Your task to perform on an android device: find snoozed emails in the gmail app Image 0: 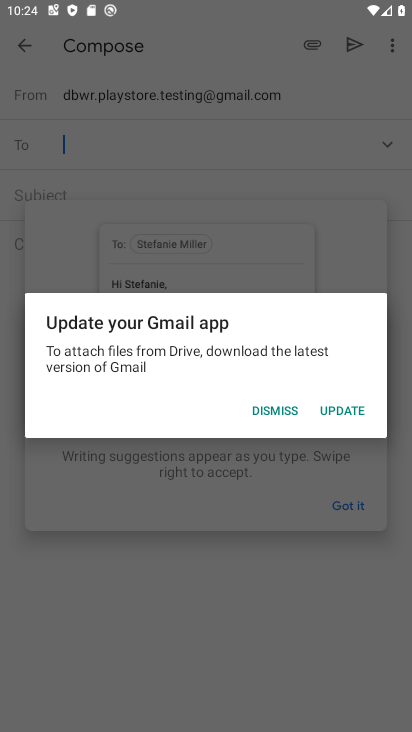
Step 0: press home button
Your task to perform on an android device: find snoozed emails in the gmail app Image 1: 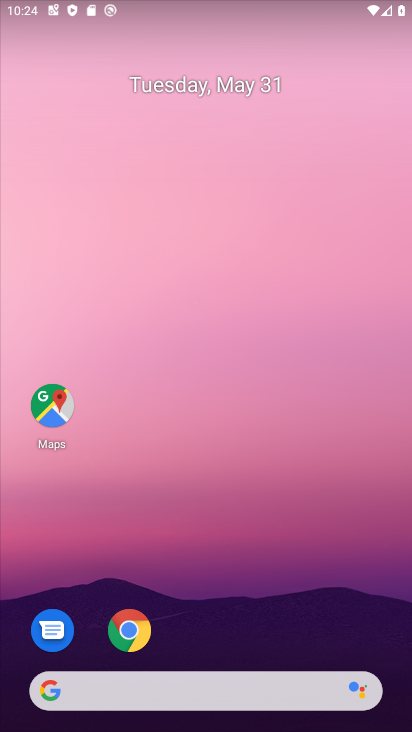
Step 1: drag from (273, 590) to (234, 176)
Your task to perform on an android device: find snoozed emails in the gmail app Image 2: 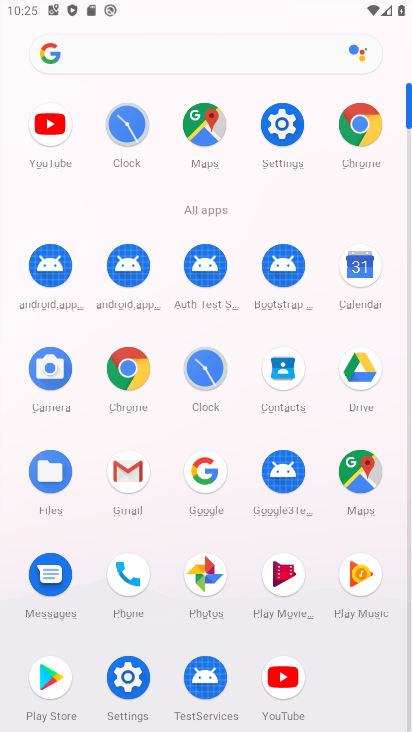
Step 2: click (126, 473)
Your task to perform on an android device: find snoozed emails in the gmail app Image 3: 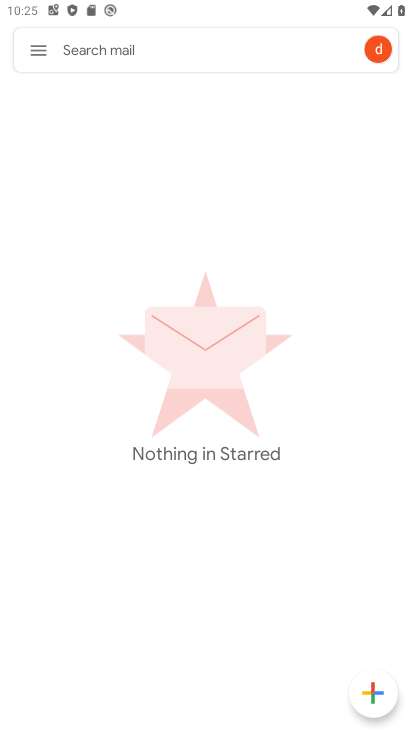
Step 3: click (40, 45)
Your task to perform on an android device: find snoozed emails in the gmail app Image 4: 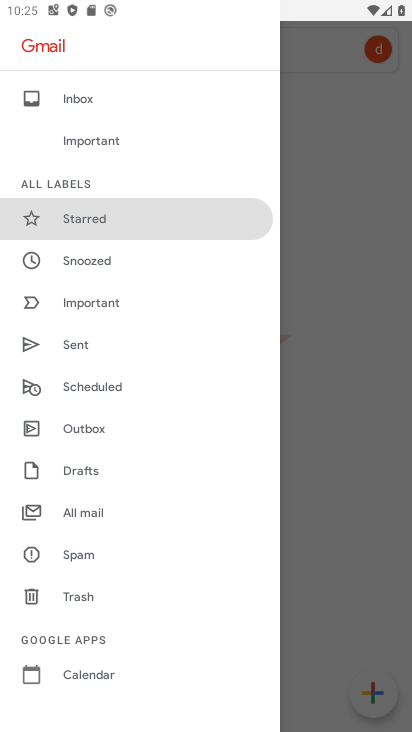
Step 4: click (86, 255)
Your task to perform on an android device: find snoozed emails in the gmail app Image 5: 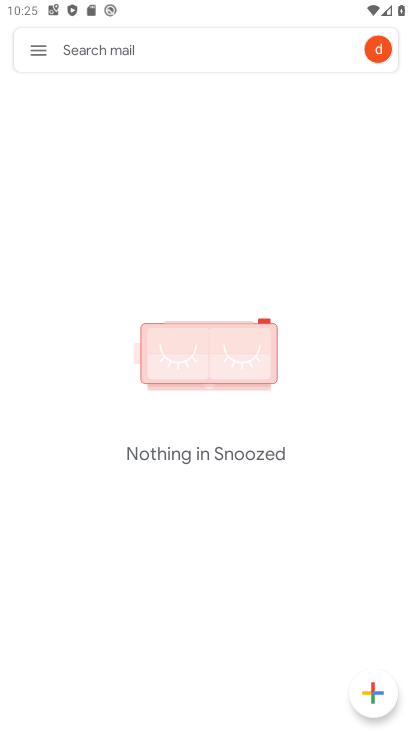
Step 5: task complete